Your task to perform on an android device: Go to notification settings Image 0: 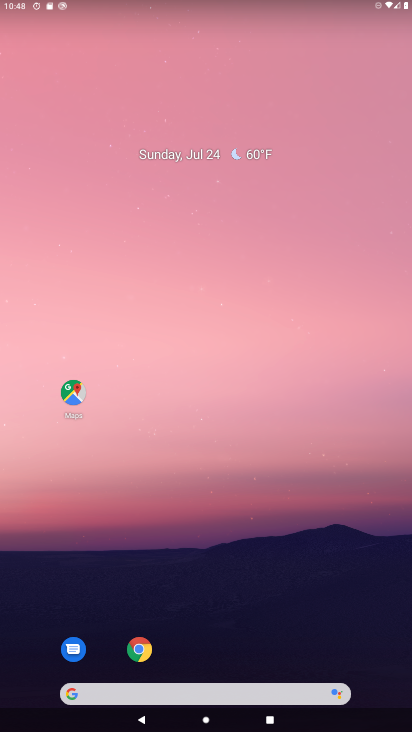
Step 0: drag from (274, 512) to (185, 0)
Your task to perform on an android device: Go to notification settings Image 1: 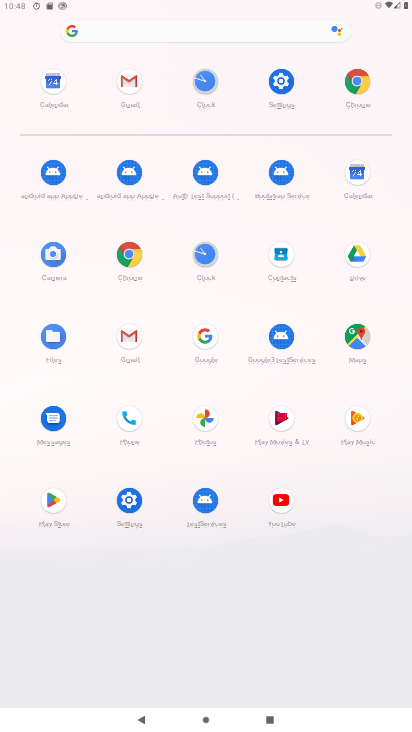
Step 1: click (283, 86)
Your task to perform on an android device: Go to notification settings Image 2: 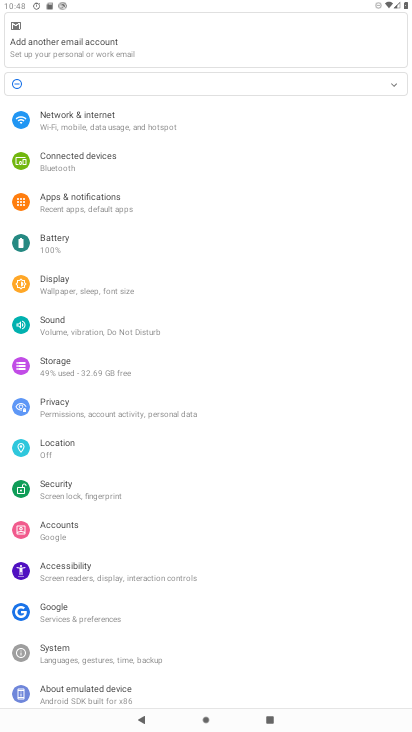
Step 2: click (106, 196)
Your task to perform on an android device: Go to notification settings Image 3: 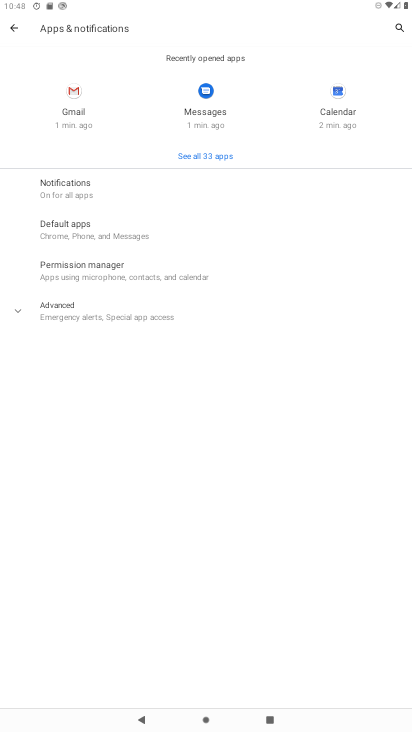
Step 3: click (106, 195)
Your task to perform on an android device: Go to notification settings Image 4: 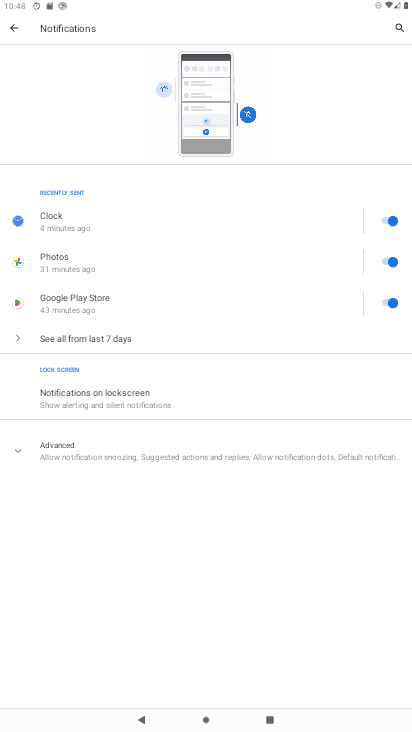
Step 4: task complete